Your task to perform on an android device: Go to Google maps Image 0: 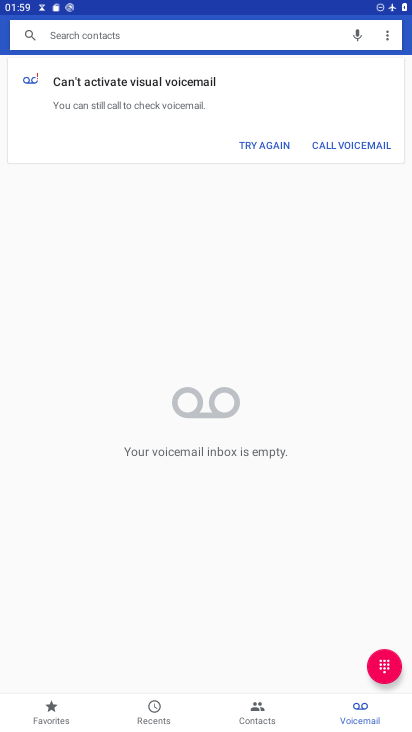
Step 0: press home button
Your task to perform on an android device: Go to Google maps Image 1: 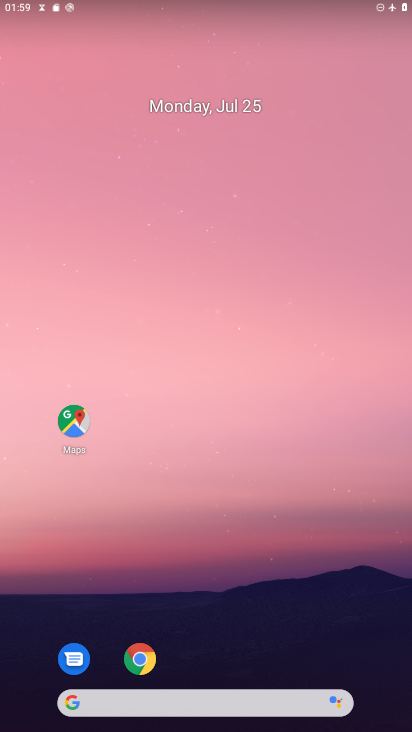
Step 1: click (75, 417)
Your task to perform on an android device: Go to Google maps Image 2: 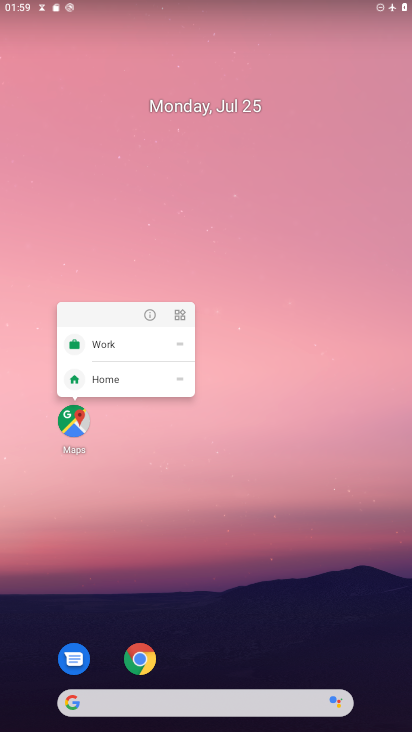
Step 2: click (75, 417)
Your task to perform on an android device: Go to Google maps Image 3: 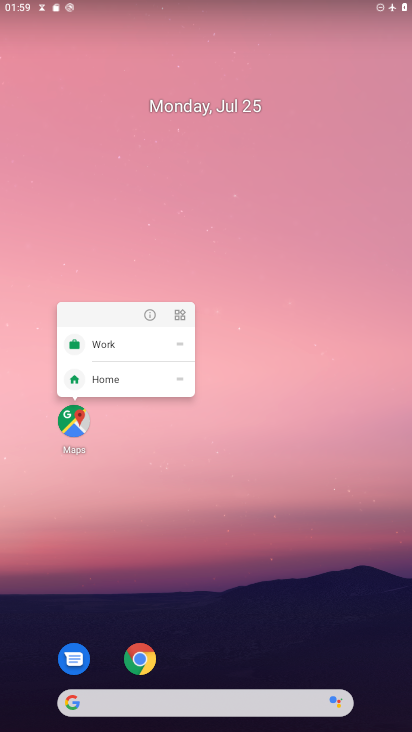
Step 3: click (75, 417)
Your task to perform on an android device: Go to Google maps Image 4: 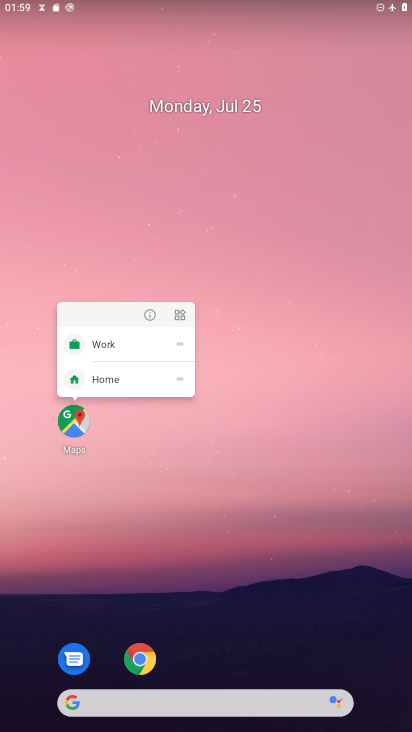
Step 4: click (75, 422)
Your task to perform on an android device: Go to Google maps Image 5: 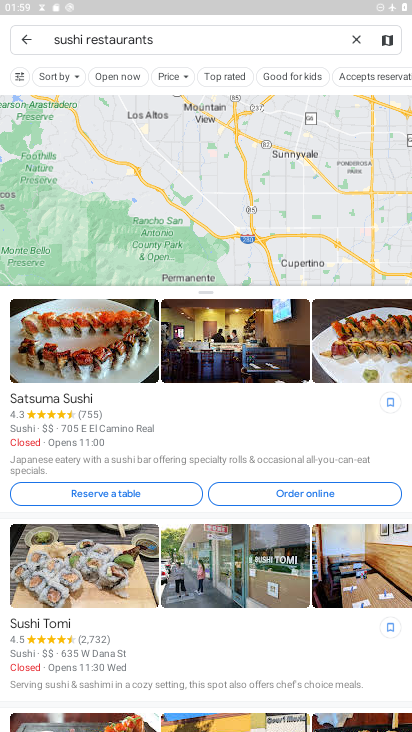
Step 5: task complete